Your task to perform on an android device: find which apps use the phone's location Image 0: 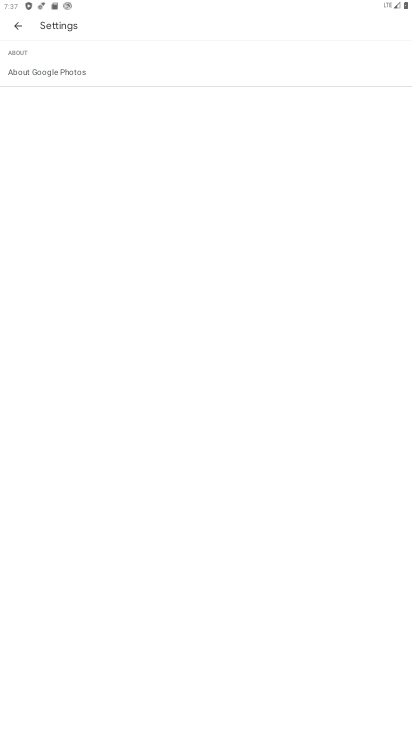
Step 0: press home button
Your task to perform on an android device: find which apps use the phone's location Image 1: 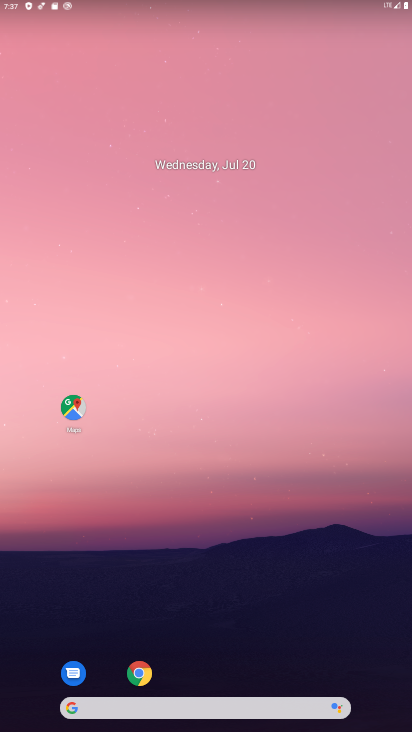
Step 1: drag from (299, 500) to (341, 69)
Your task to perform on an android device: find which apps use the phone's location Image 2: 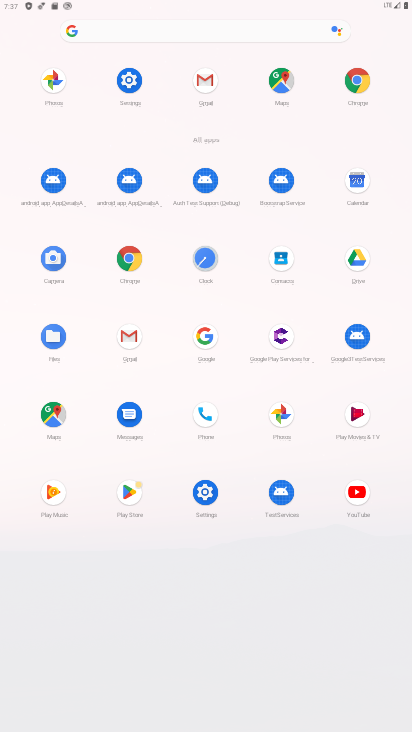
Step 2: click (125, 75)
Your task to perform on an android device: find which apps use the phone's location Image 3: 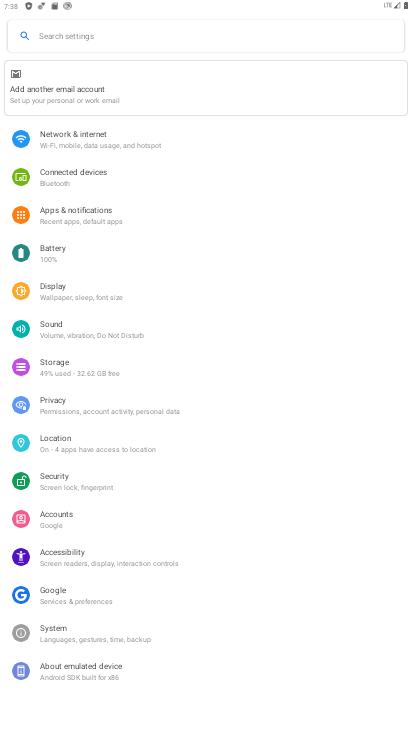
Step 3: click (61, 443)
Your task to perform on an android device: find which apps use the phone's location Image 4: 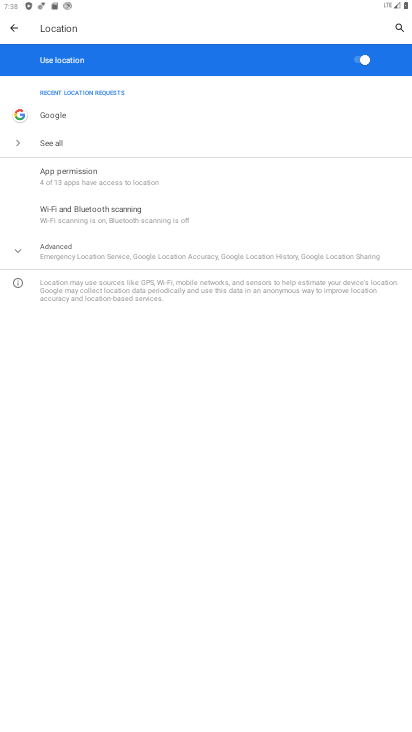
Step 4: click (88, 174)
Your task to perform on an android device: find which apps use the phone's location Image 5: 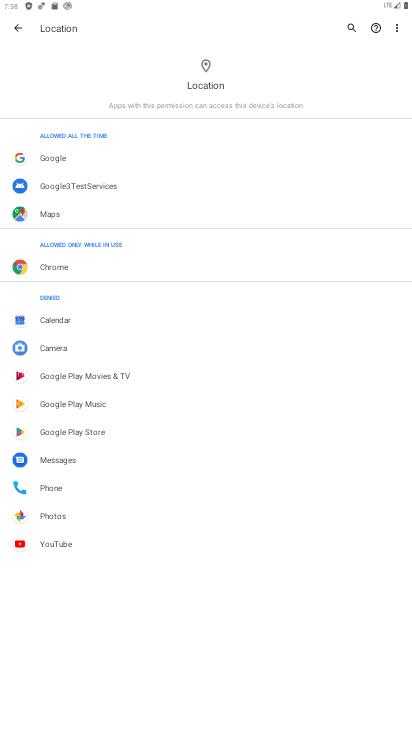
Step 5: task complete